Your task to perform on an android device: Search for logitech g903 on ebay.com, select the first entry, add it to the cart, then select checkout. Image 0: 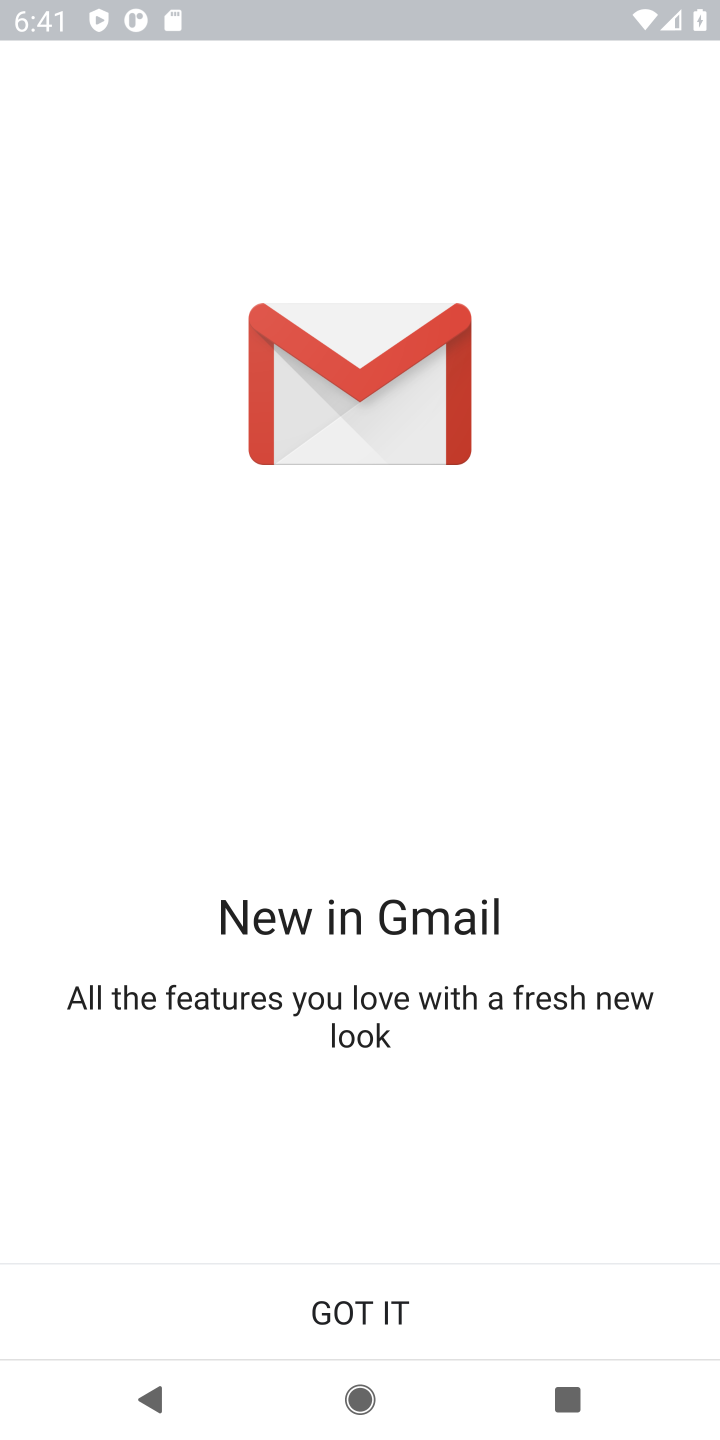
Step 0: press home button
Your task to perform on an android device: Search for logitech g903 on ebay.com, select the first entry, add it to the cart, then select checkout. Image 1: 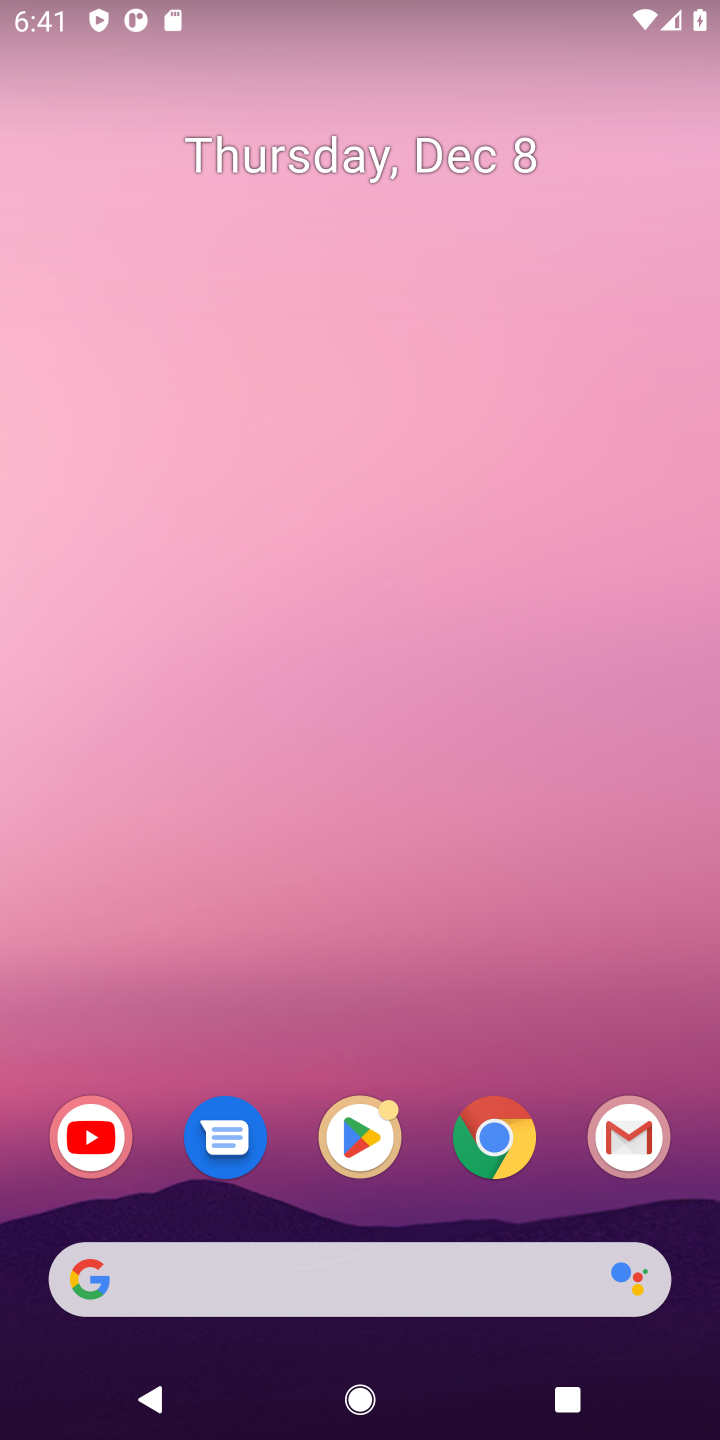
Step 1: click (500, 1144)
Your task to perform on an android device: Search for logitech g903 on ebay.com, select the first entry, add it to the cart, then select checkout. Image 2: 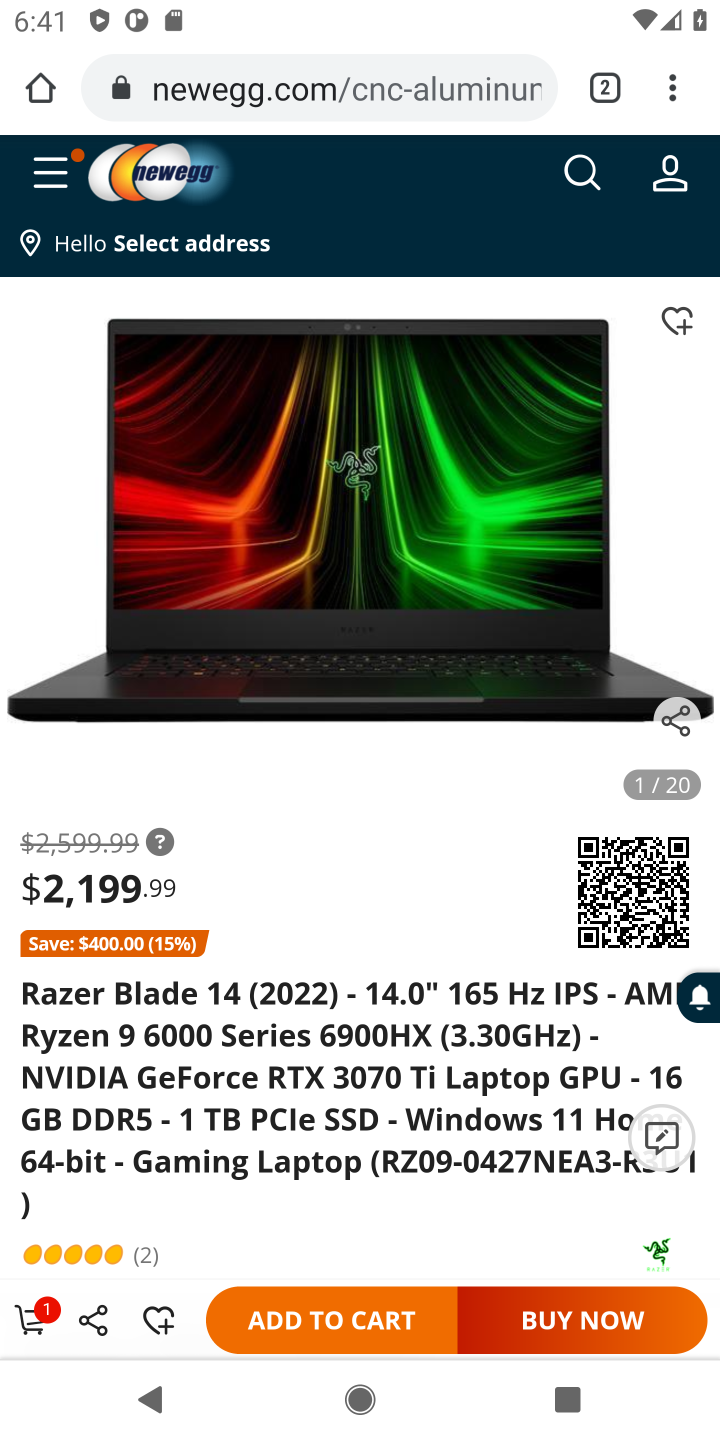
Step 2: click (610, 76)
Your task to perform on an android device: Search for logitech g903 on ebay.com, select the first entry, add it to the cart, then select checkout. Image 3: 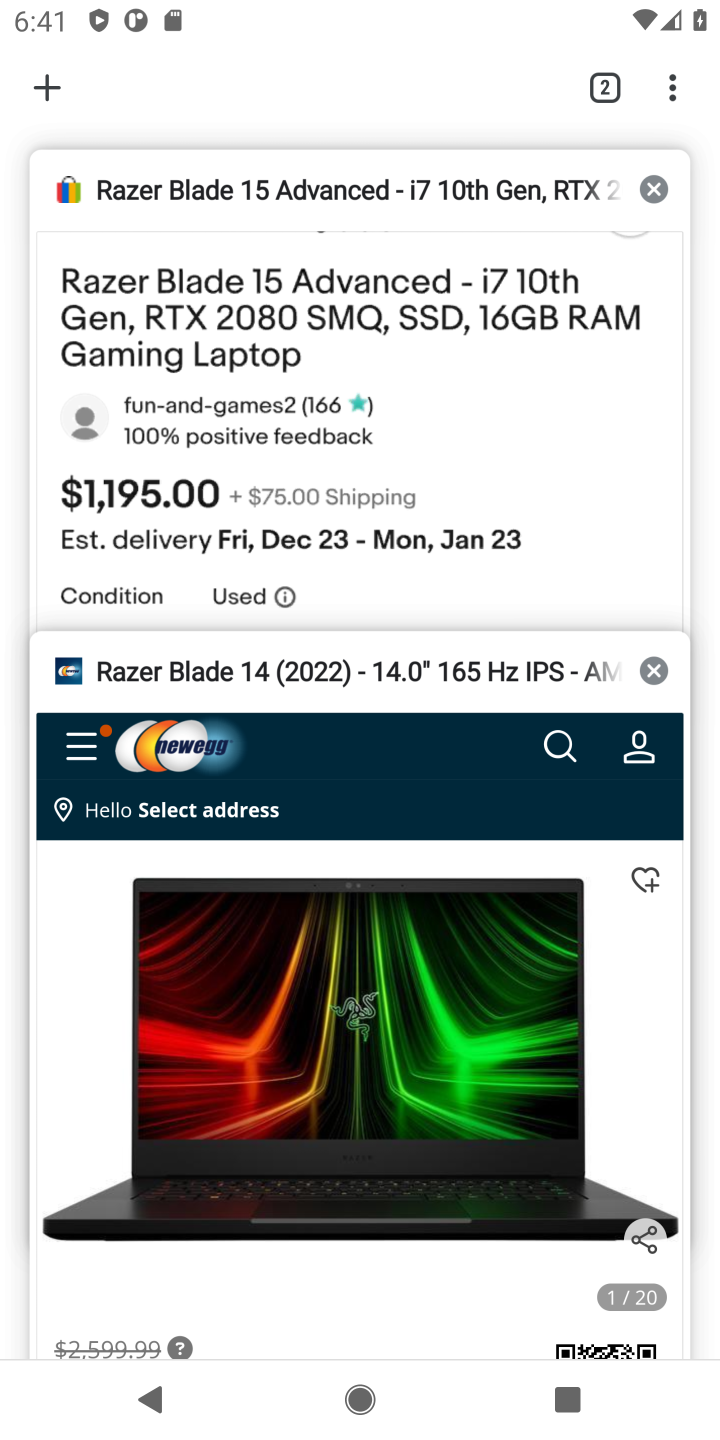
Step 3: click (448, 297)
Your task to perform on an android device: Search for logitech g903 on ebay.com, select the first entry, add it to the cart, then select checkout. Image 4: 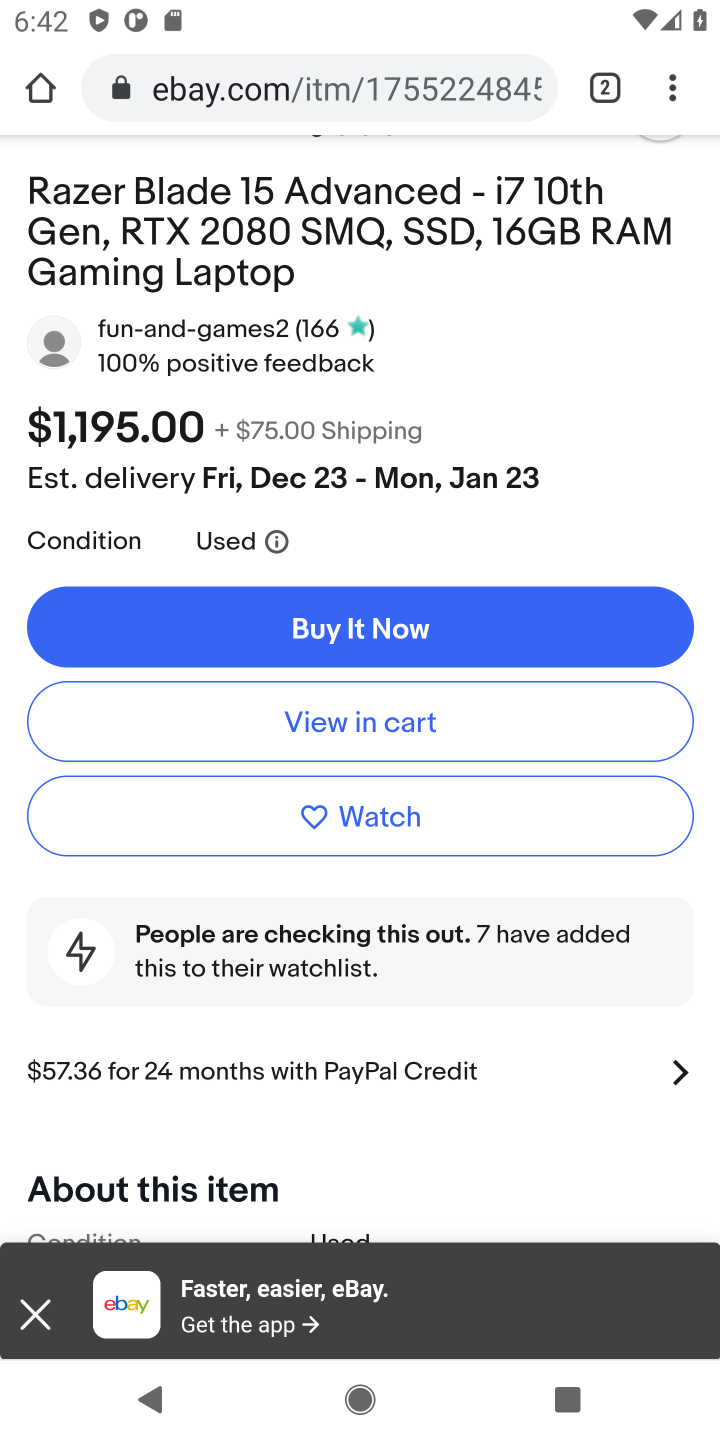
Step 4: press back button
Your task to perform on an android device: Search for logitech g903 on ebay.com, select the first entry, add it to the cart, then select checkout. Image 5: 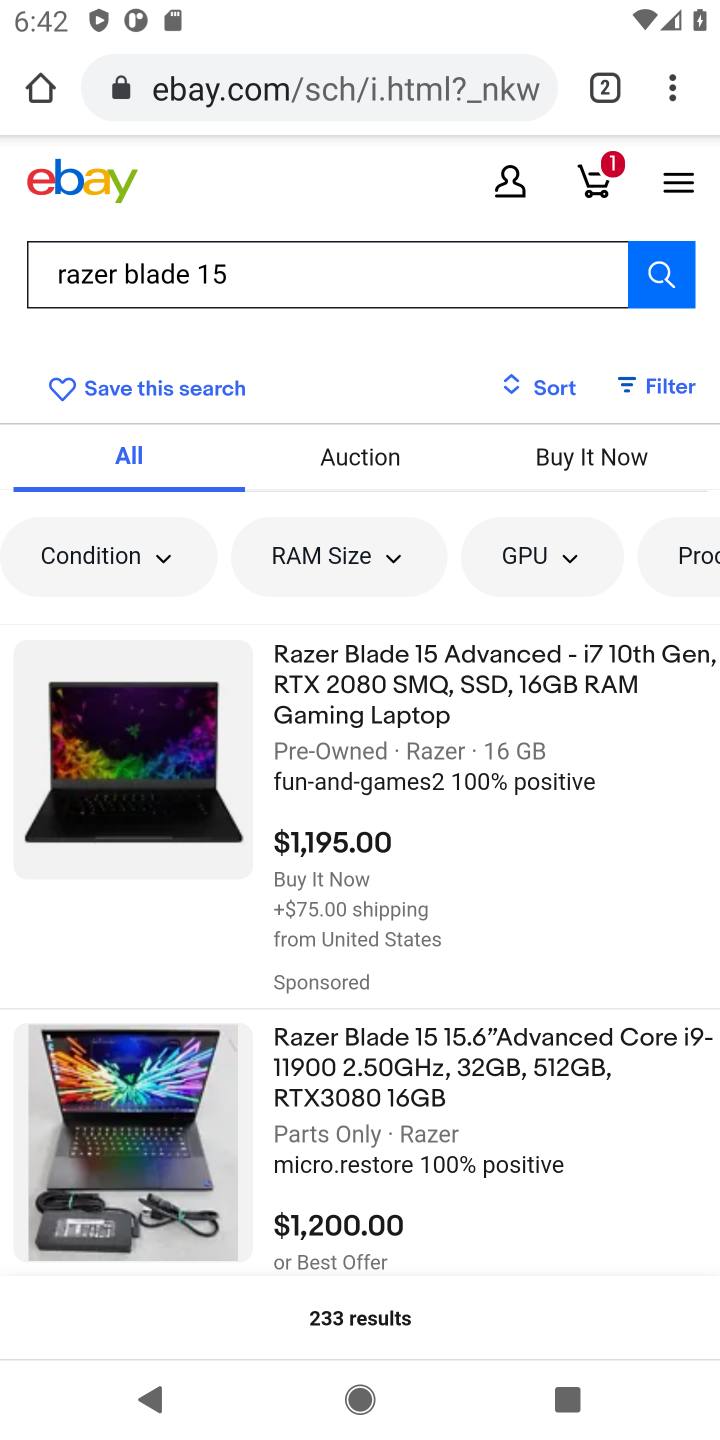
Step 5: click (339, 291)
Your task to perform on an android device: Search for logitech g903 on ebay.com, select the first entry, add it to the cart, then select checkout. Image 6: 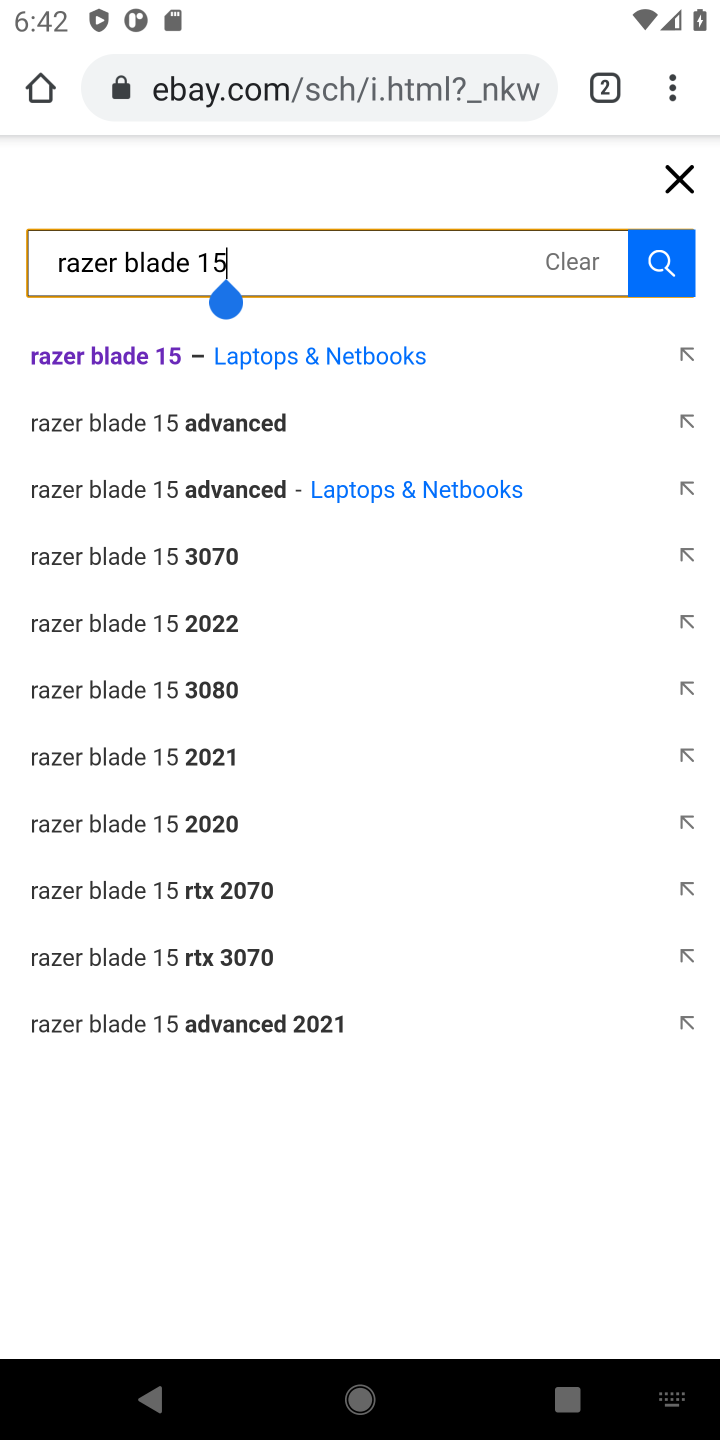
Step 6: click (591, 259)
Your task to perform on an android device: Search for logitech g903 on ebay.com, select the first entry, add it to the cart, then select checkout. Image 7: 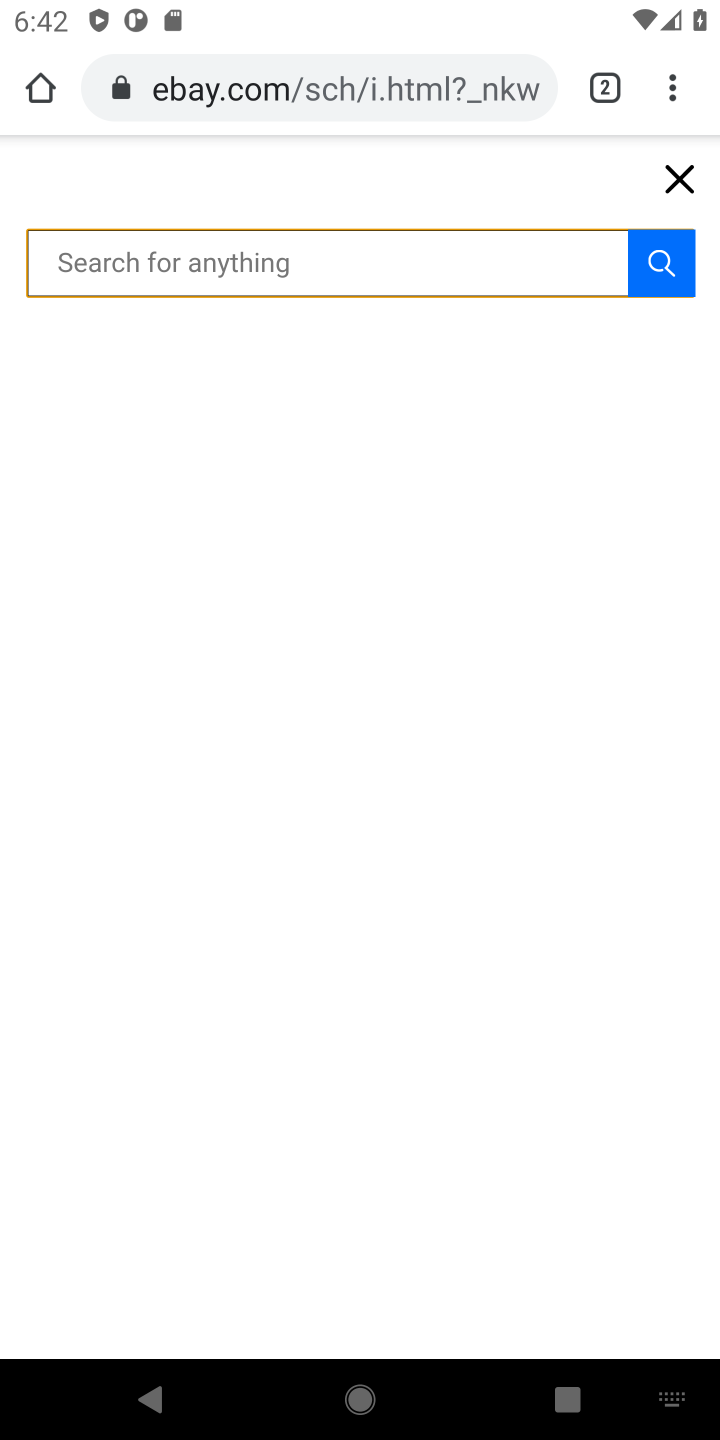
Step 7: type "logitech g903"
Your task to perform on an android device: Search for logitech g903 on ebay.com, select the first entry, add it to the cart, then select checkout. Image 8: 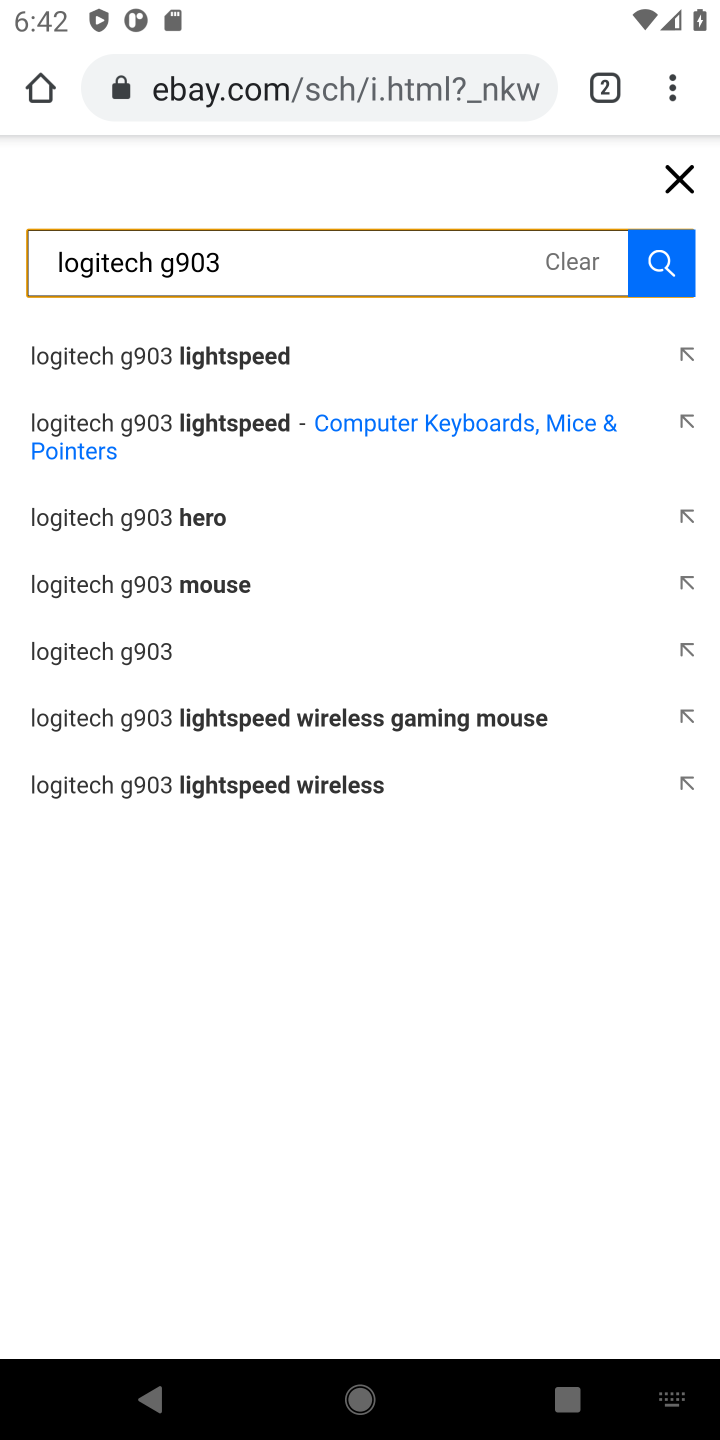
Step 8: click (134, 651)
Your task to perform on an android device: Search for logitech g903 on ebay.com, select the first entry, add it to the cart, then select checkout. Image 9: 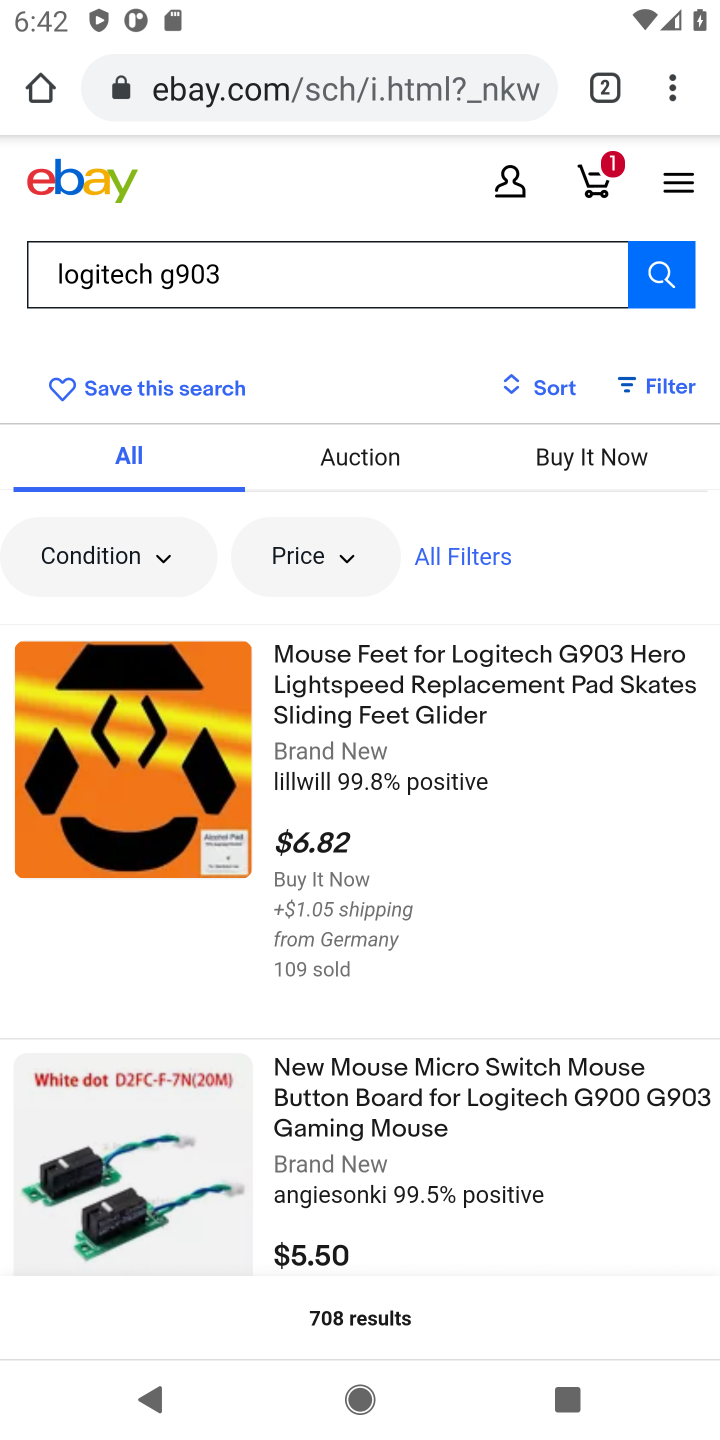
Step 9: drag from (581, 1229) to (633, 754)
Your task to perform on an android device: Search for logitech g903 on ebay.com, select the first entry, add it to the cart, then select checkout. Image 10: 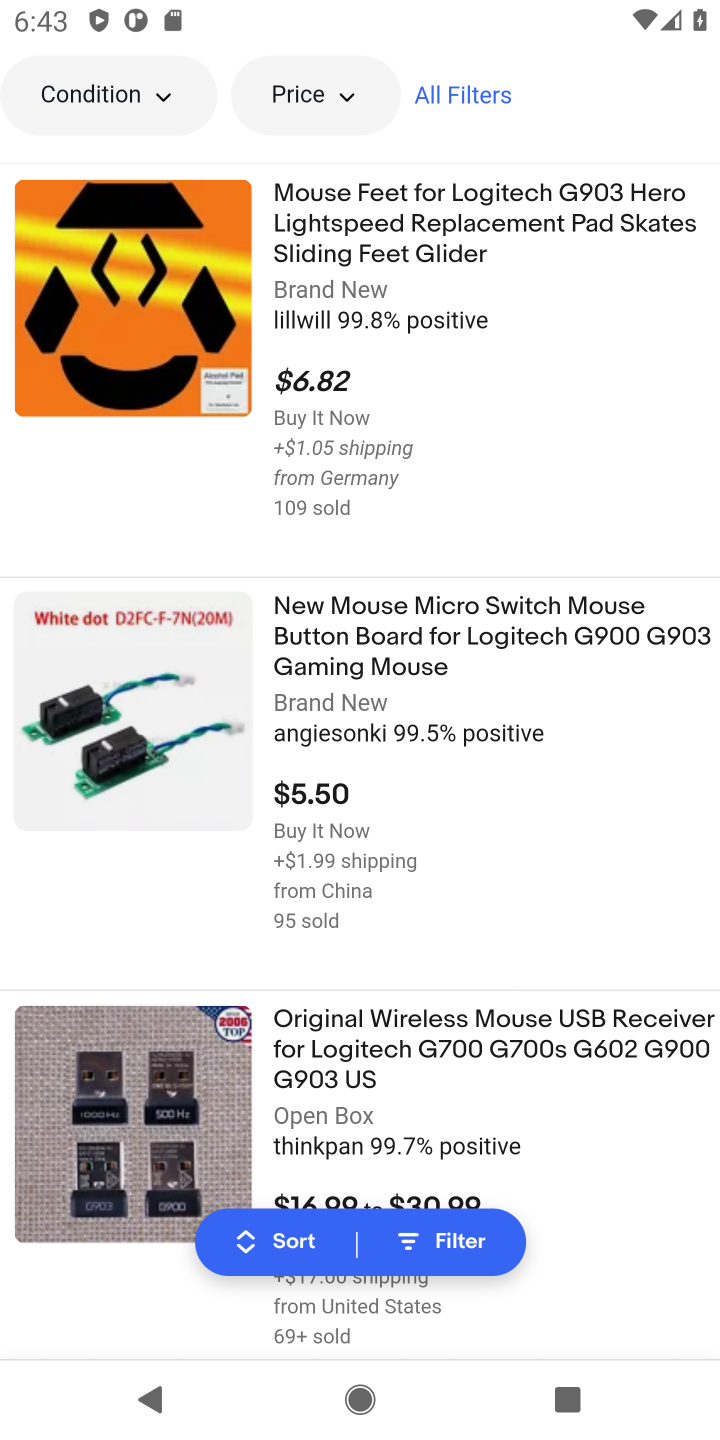
Step 10: drag from (504, 420) to (469, 903)
Your task to perform on an android device: Search for logitech g903 on ebay.com, select the first entry, add it to the cart, then select checkout. Image 11: 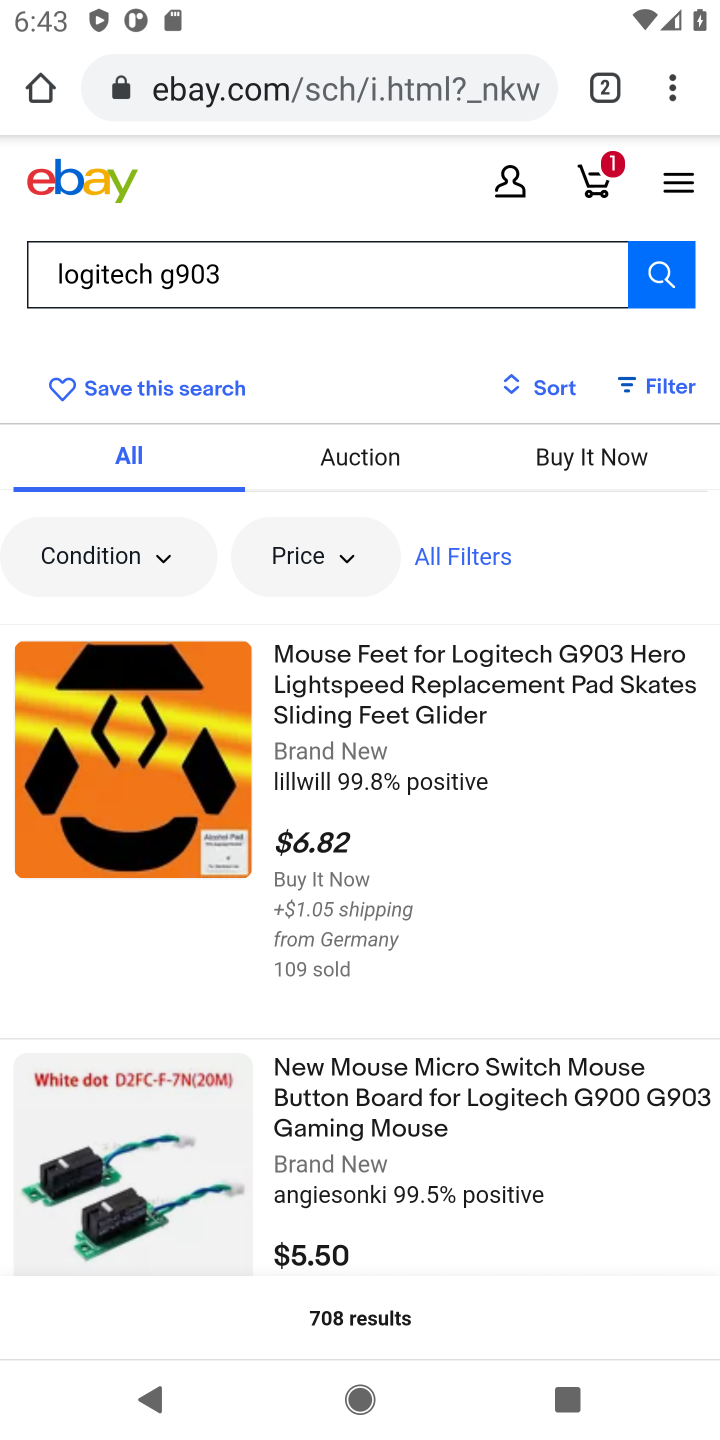
Step 11: click (377, 665)
Your task to perform on an android device: Search for logitech g903 on ebay.com, select the first entry, add it to the cart, then select checkout. Image 12: 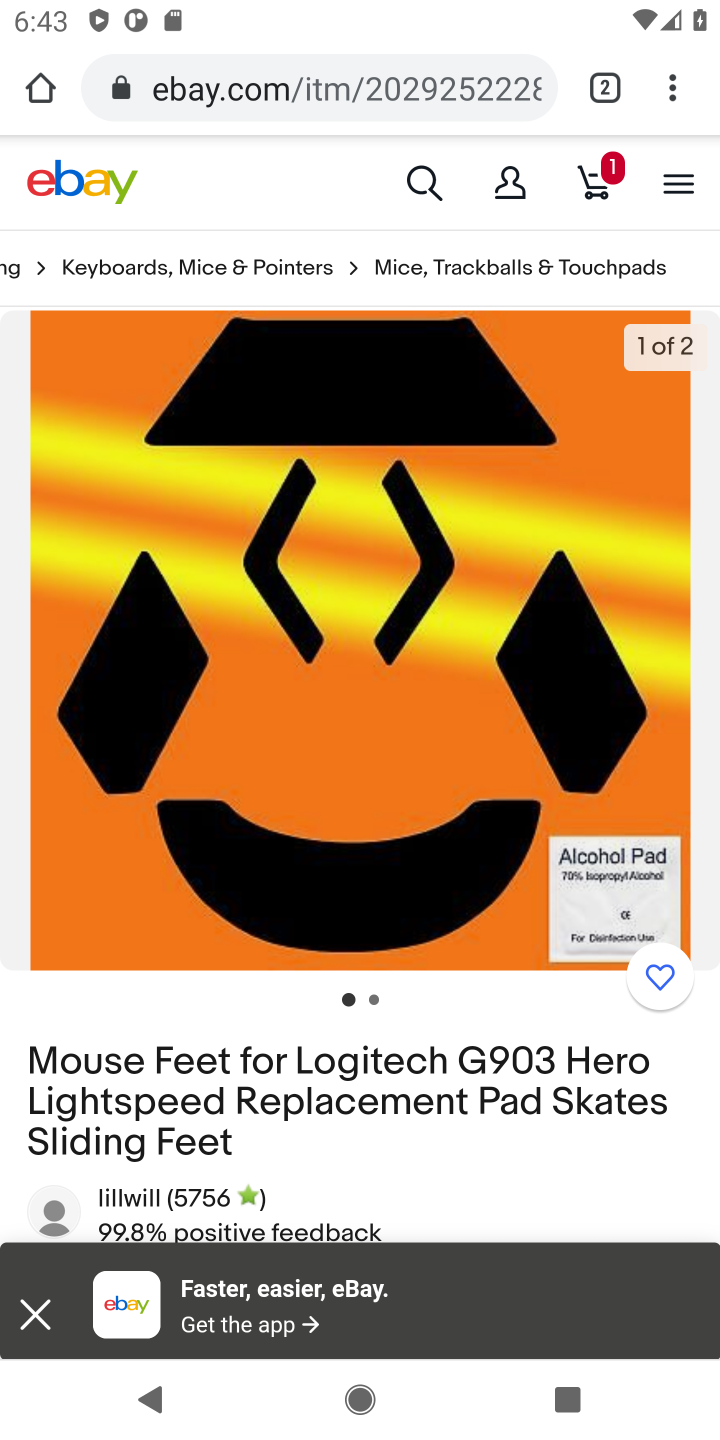
Step 12: drag from (361, 1174) to (356, 385)
Your task to perform on an android device: Search for logitech g903 on ebay.com, select the first entry, add it to the cart, then select checkout. Image 13: 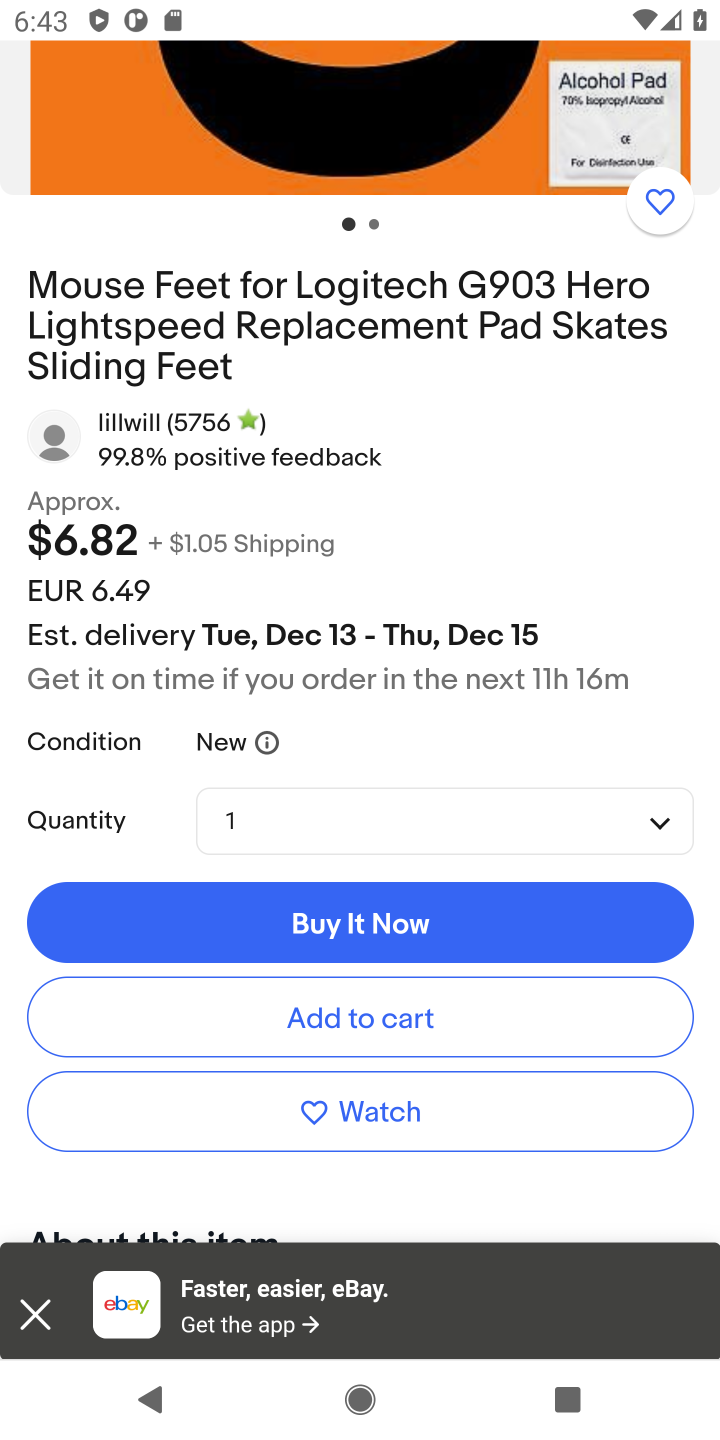
Step 13: click (360, 1015)
Your task to perform on an android device: Search for logitech g903 on ebay.com, select the first entry, add it to the cart, then select checkout. Image 14: 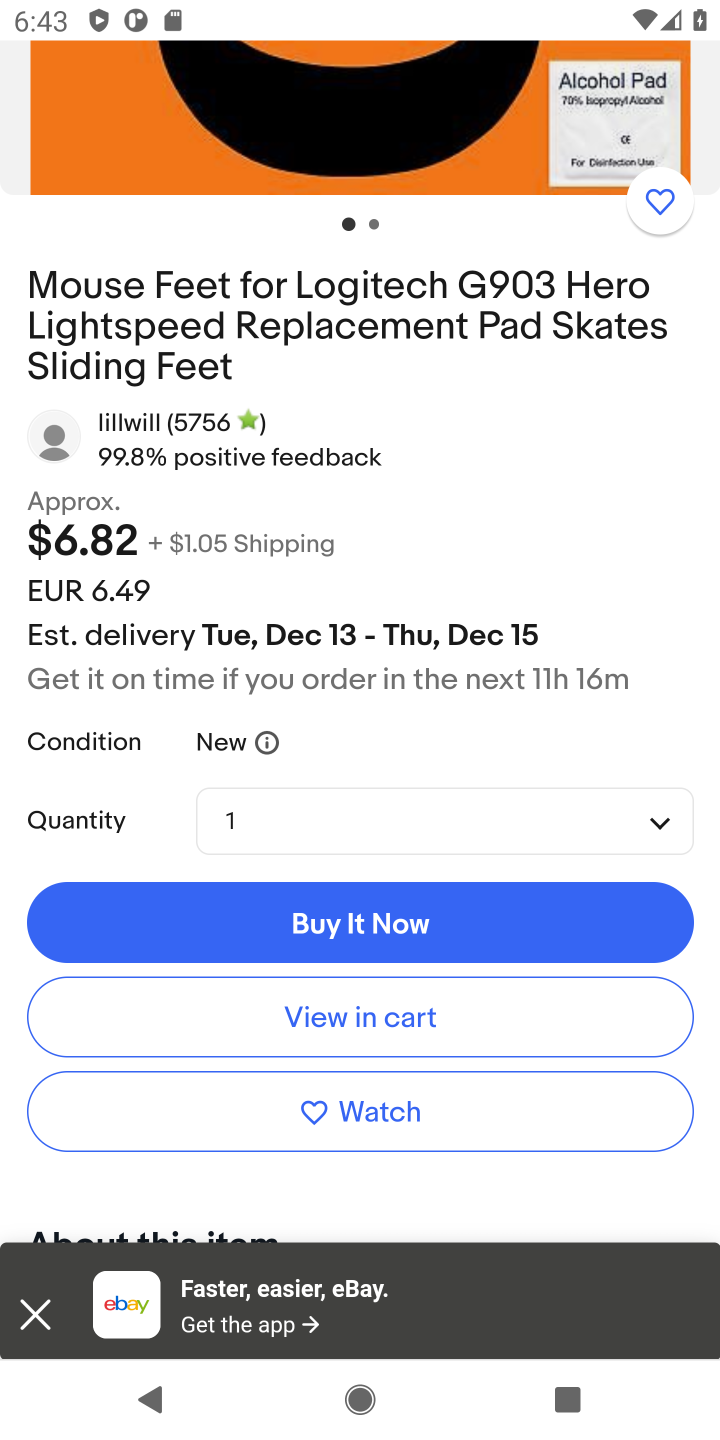
Step 14: click (395, 1010)
Your task to perform on an android device: Search for logitech g903 on ebay.com, select the first entry, add it to the cart, then select checkout. Image 15: 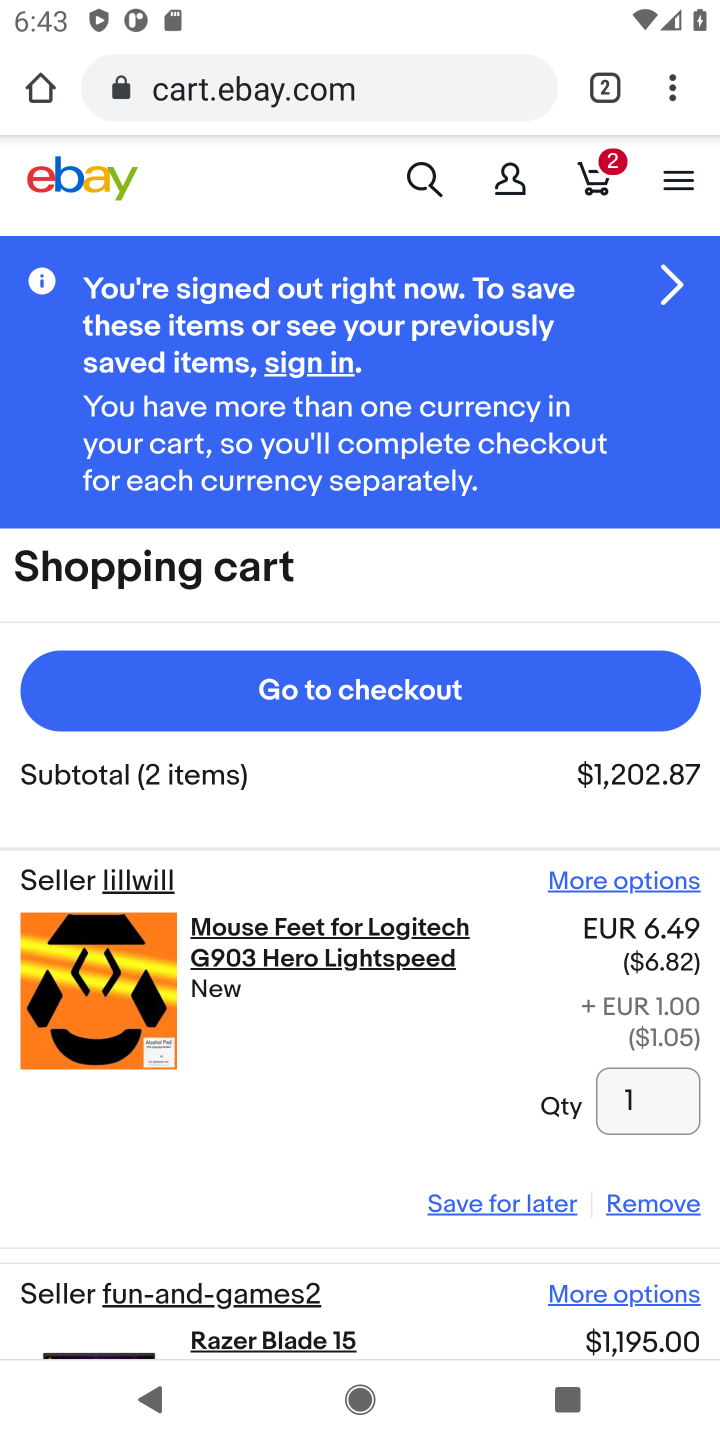
Step 15: click (534, 672)
Your task to perform on an android device: Search for logitech g903 on ebay.com, select the first entry, add it to the cart, then select checkout. Image 16: 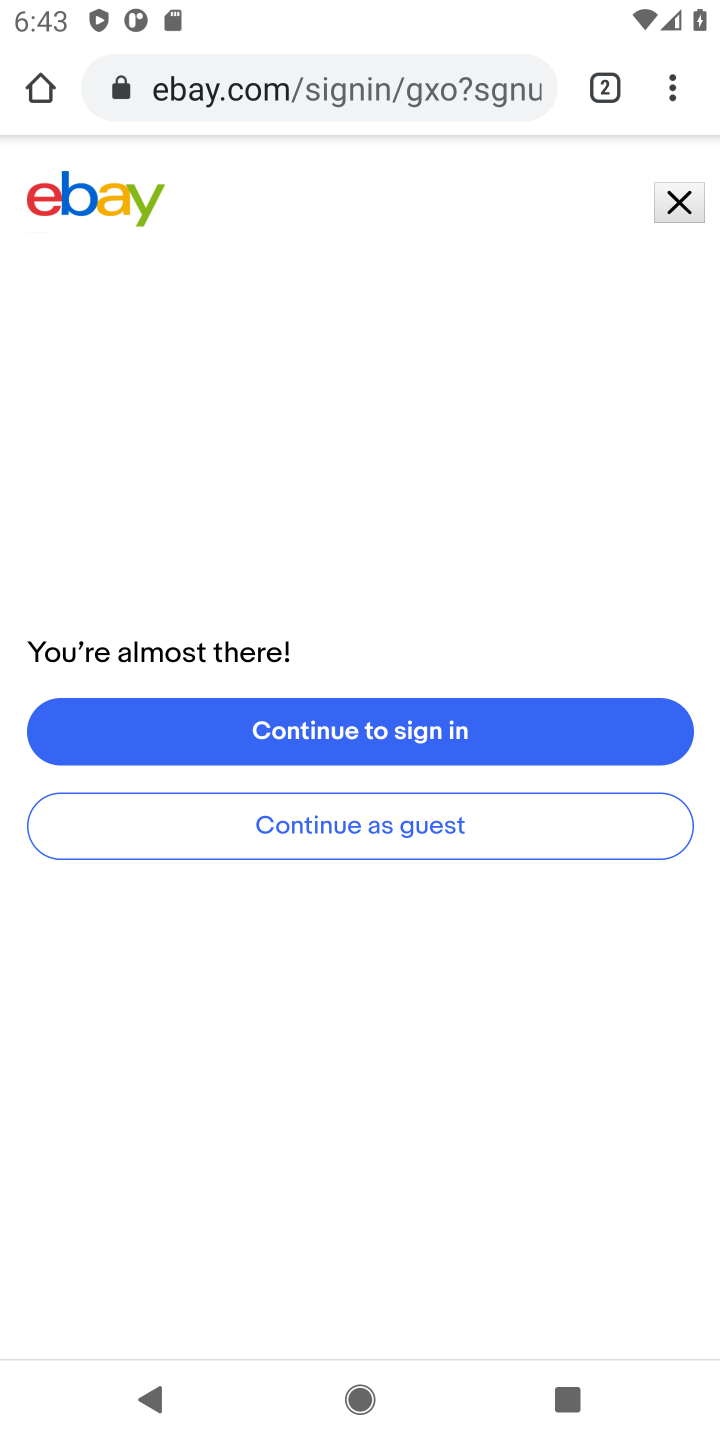
Step 16: task complete